Your task to perform on an android device: refresh tabs in the chrome app Image 0: 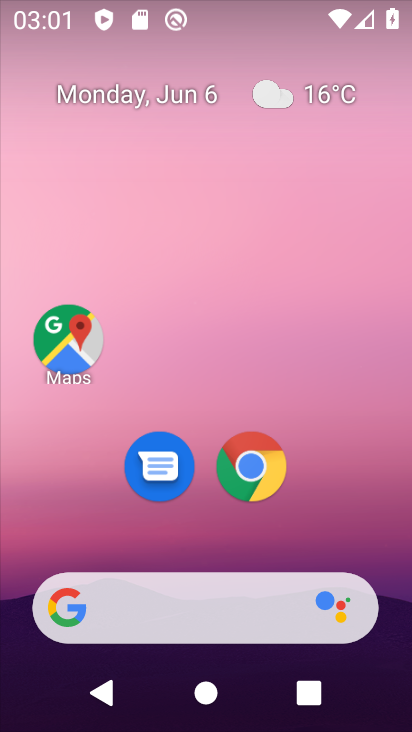
Step 0: click (257, 459)
Your task to perform on an android device: refresh tabs in the chrome app Image 1: 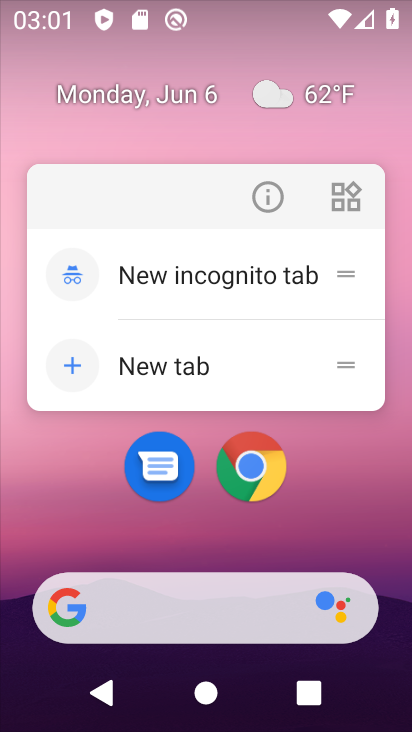
Step 1: click (250, 475)
Your task to perform on an android device: refresh tabs in the chrome app Image 2: 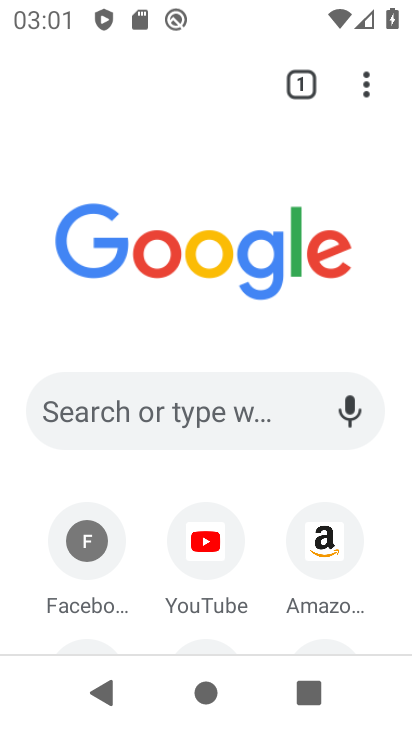
Step 2: click (366, 79)
Your task to perform on an android device: refresh tabs in the chrome app Image 3: 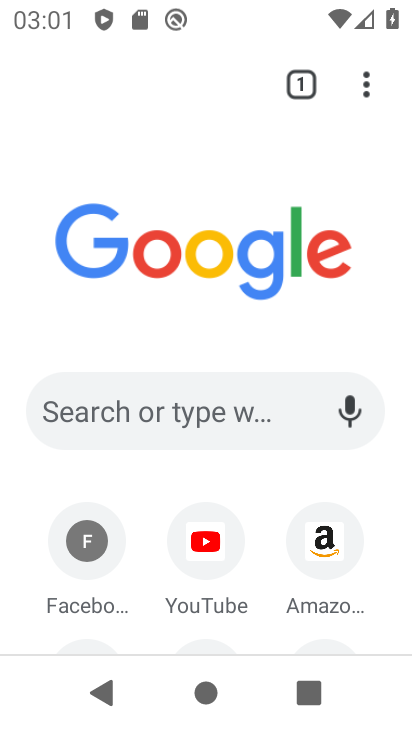
Step 3: task complete